Your task to perform on an android device: Go to notification settings Image 0: 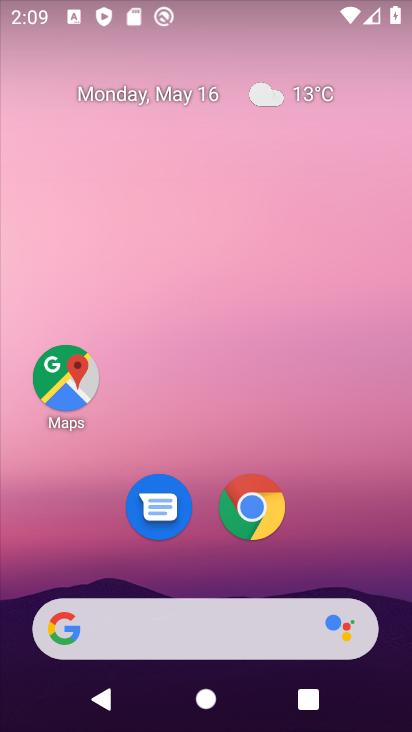
Step 0: drag from (278, 578) to (266, 173)
Your task to perform on an android device: Go to notification settings Image 1: 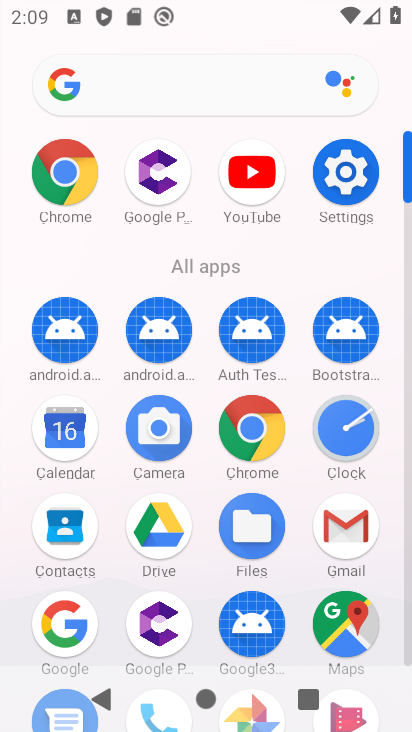
Step 1: click (348, 192)
Your task to perform on an android device: Go to notification settings Image 2: 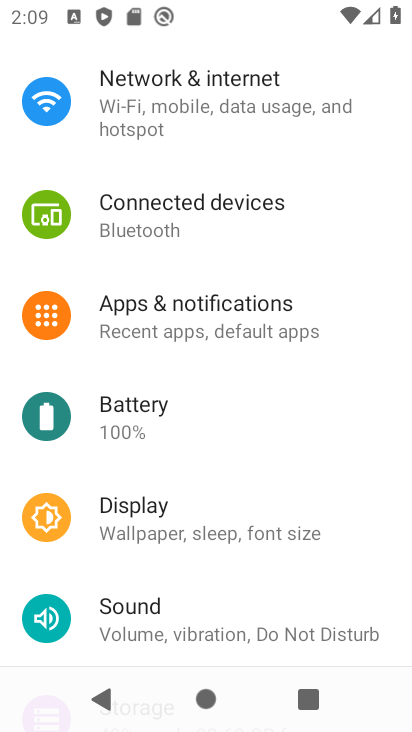
Step 2: click (231, 341)
Your task to perform on an android device: Go to notification settings Image 3: 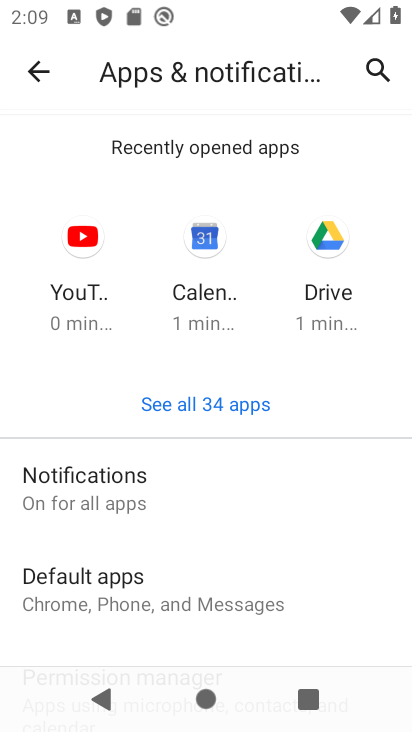
Step 3: click (190, 517)
Your task to perform on an android device: Go to notification settings Image 4: 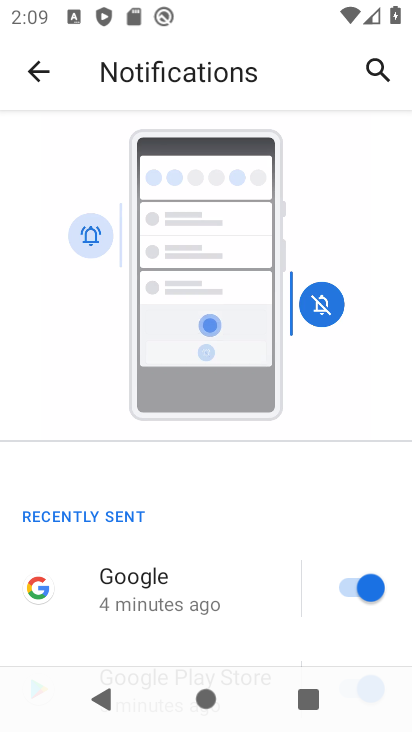
Step 4: task complete